Your task to perform on an android device: Add "amazon basics triple a" to the cart on bestbuy.com Image 0: 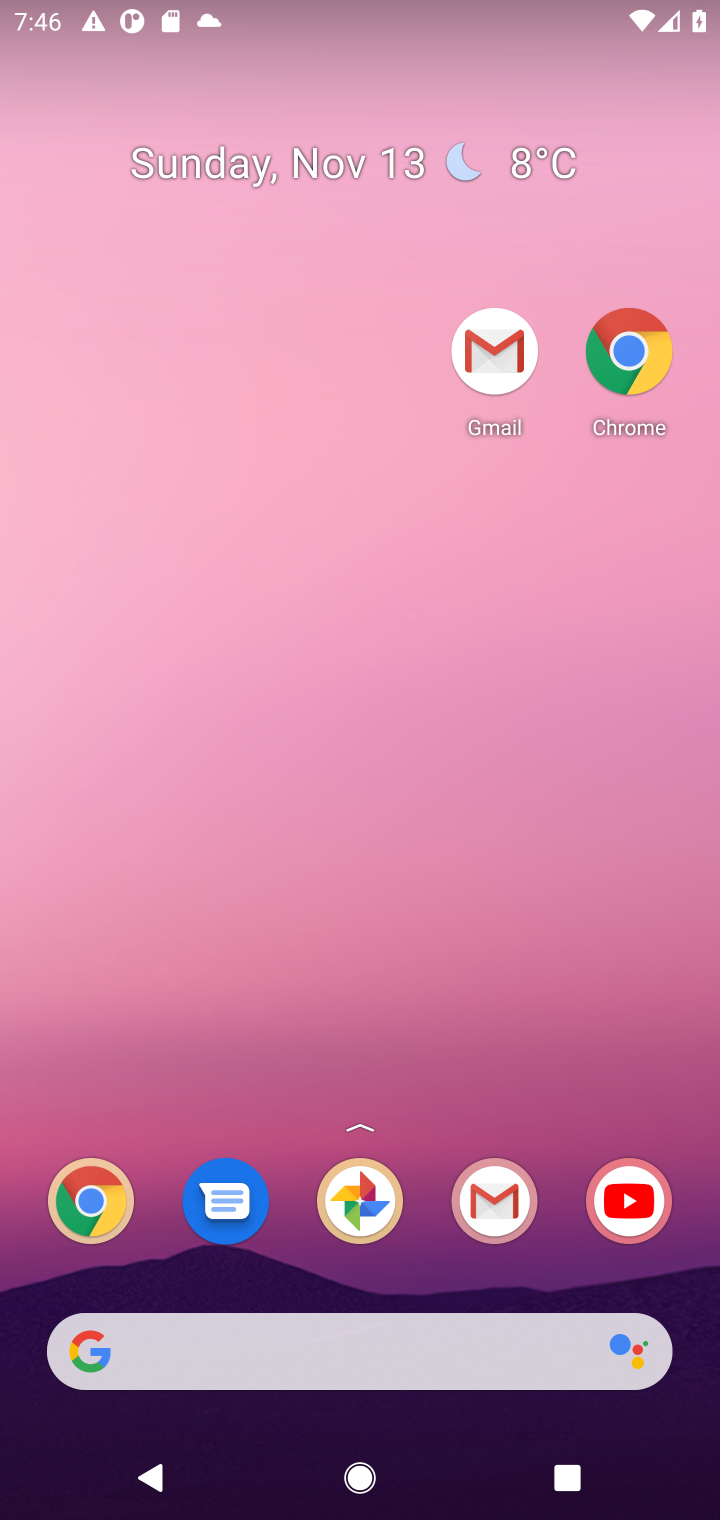
Step 0: drag from (420, 1281) to (325, 252)
Your task to perform on an android device: Add "amazon basics triple a" to the cart on bestbuy.com Image 1: 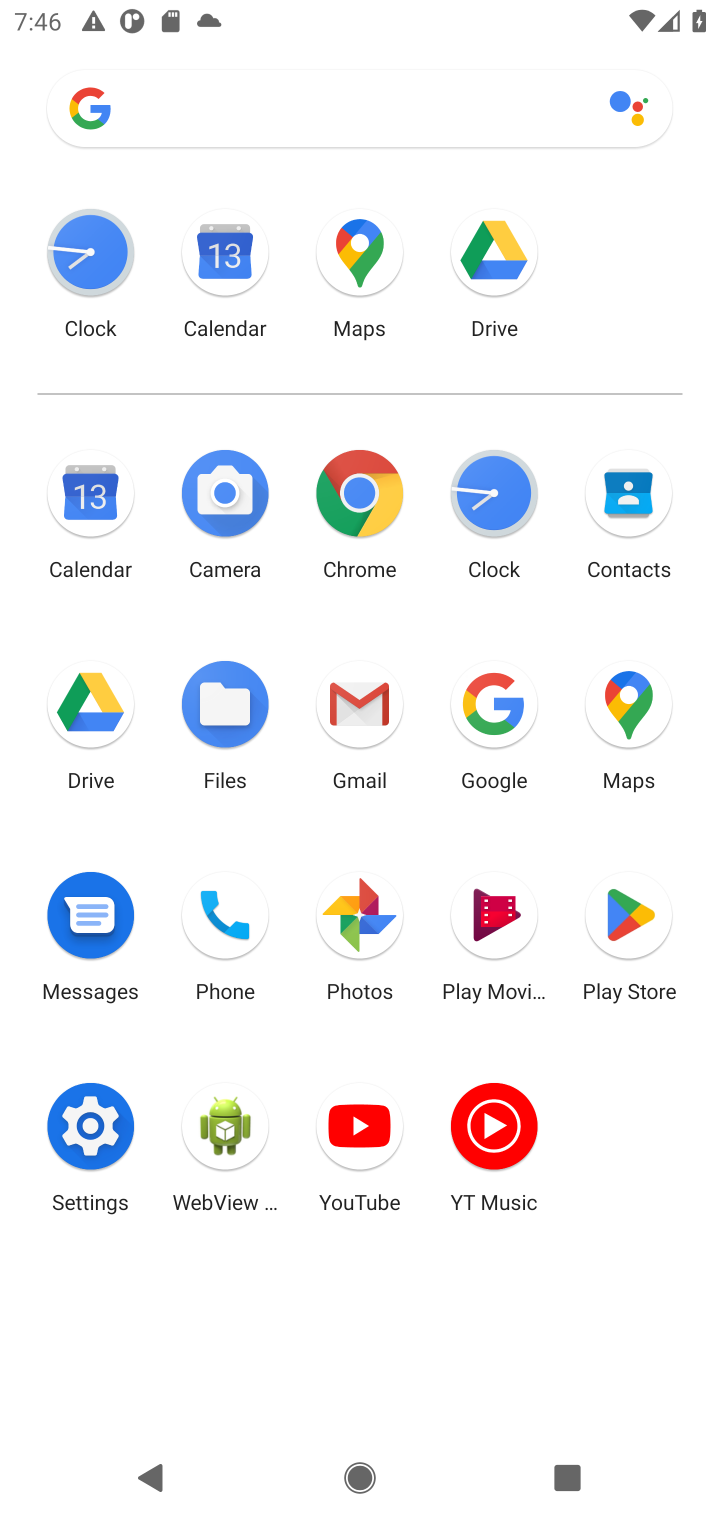
Step 1: click (367, 485)
Your task to perform on an android device: Add "amazon basics triple a" to the cart on bestbuy.com Image 2: 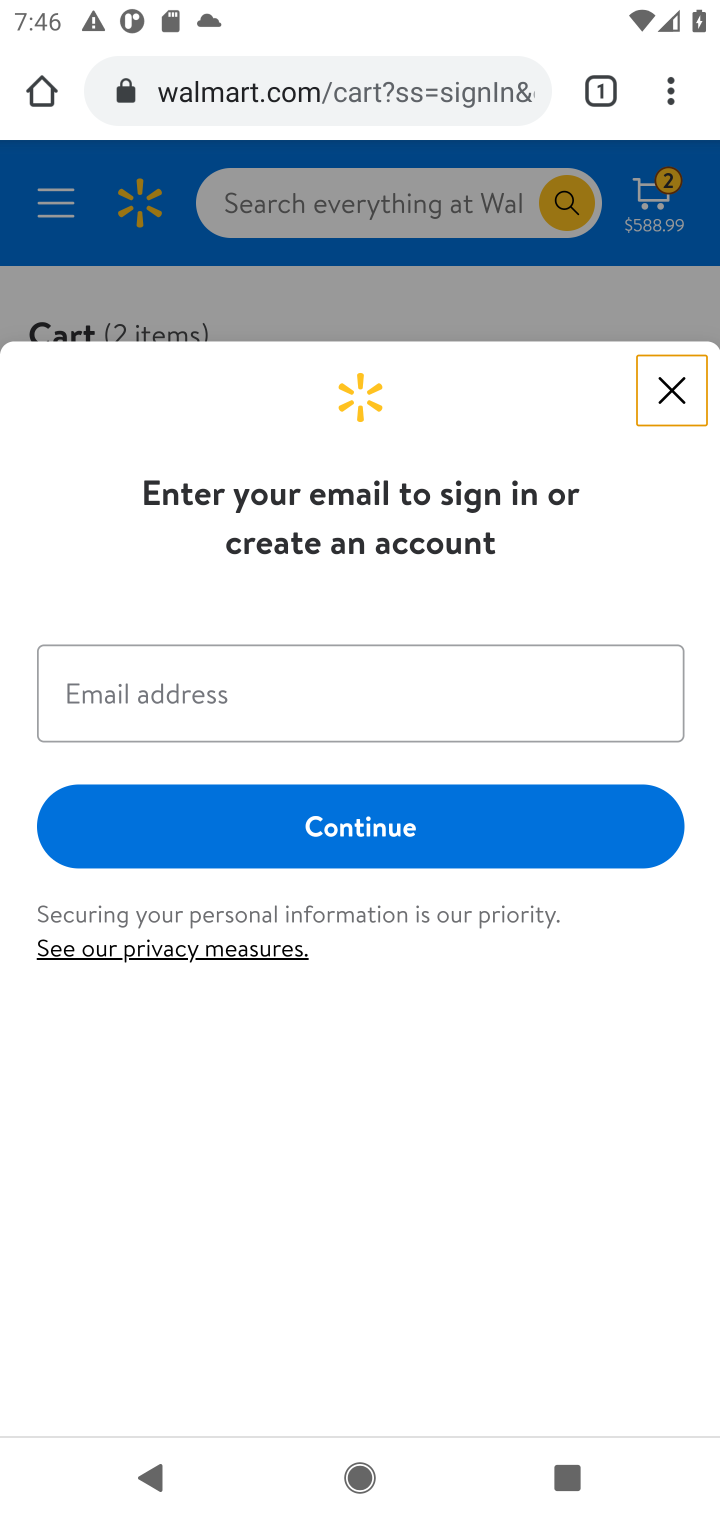
Step 2: click (448, 95)
Your task to perform on an android device: Add "amazon basics triple a" to the cart on bestbuy.com Image 3: 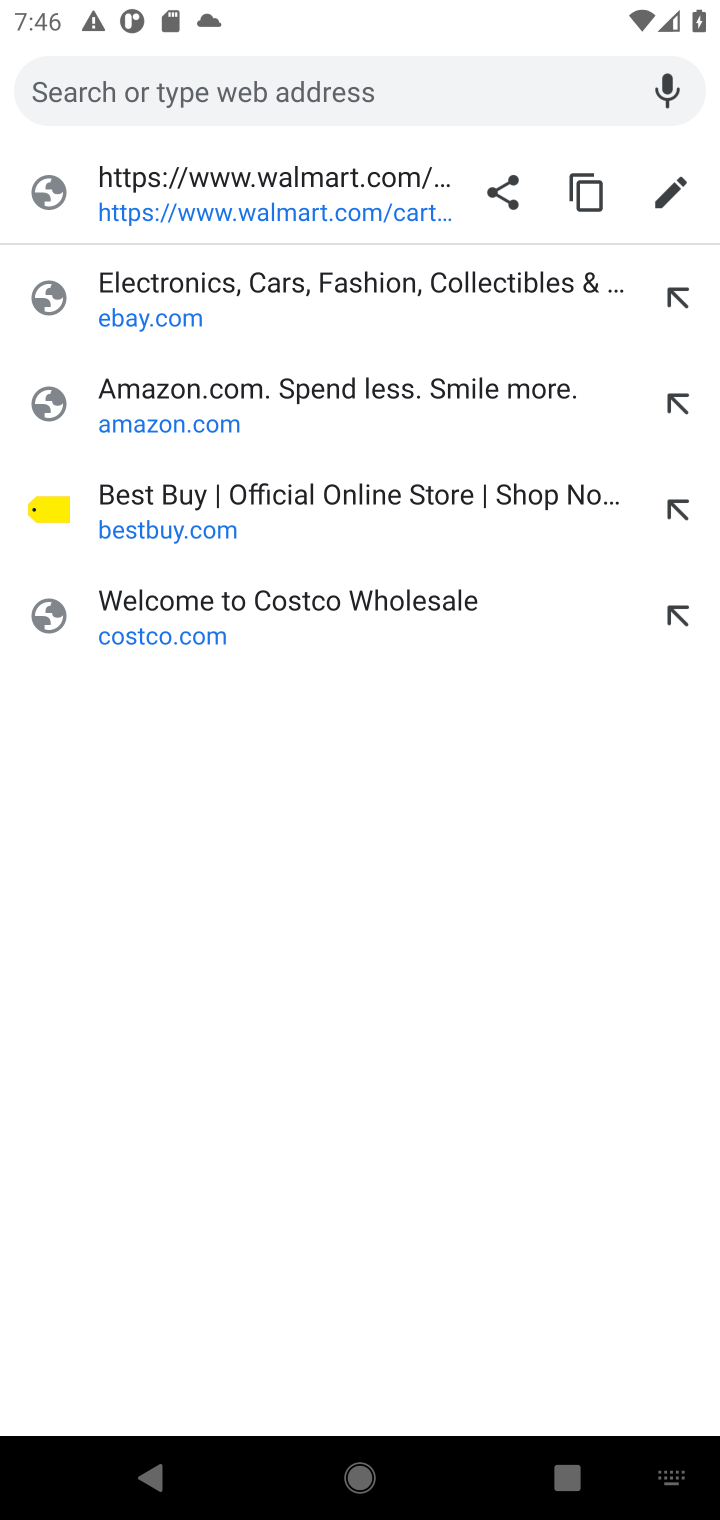
Step 3: type "bestbuy.com"
Your task to perform on an android device: Add "amazon basics triple a" to the cart on bestbuy.com Image 4: 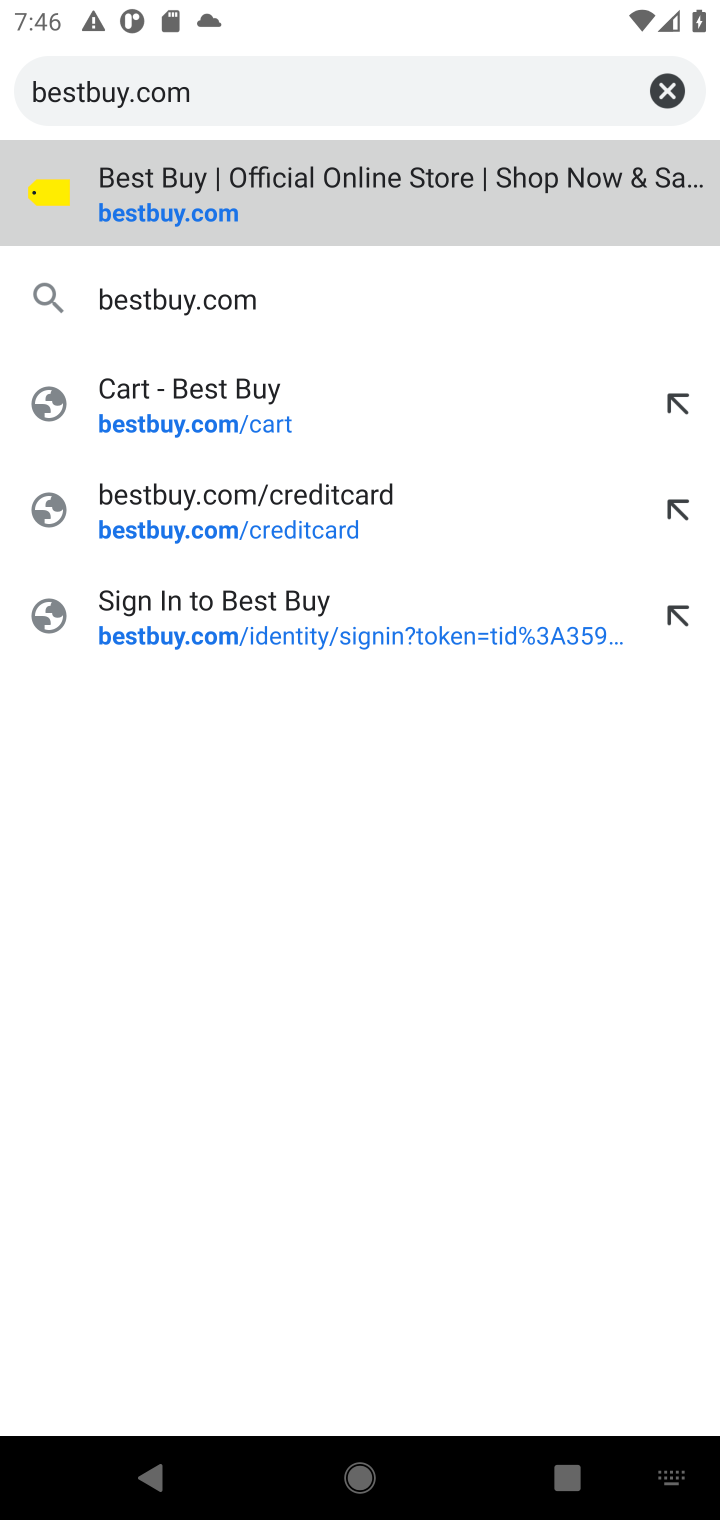
Step 4: press enter
Your task to perform on an android device: Add "amazon basics triple a" to the cart on bestbuy.com Image 5: 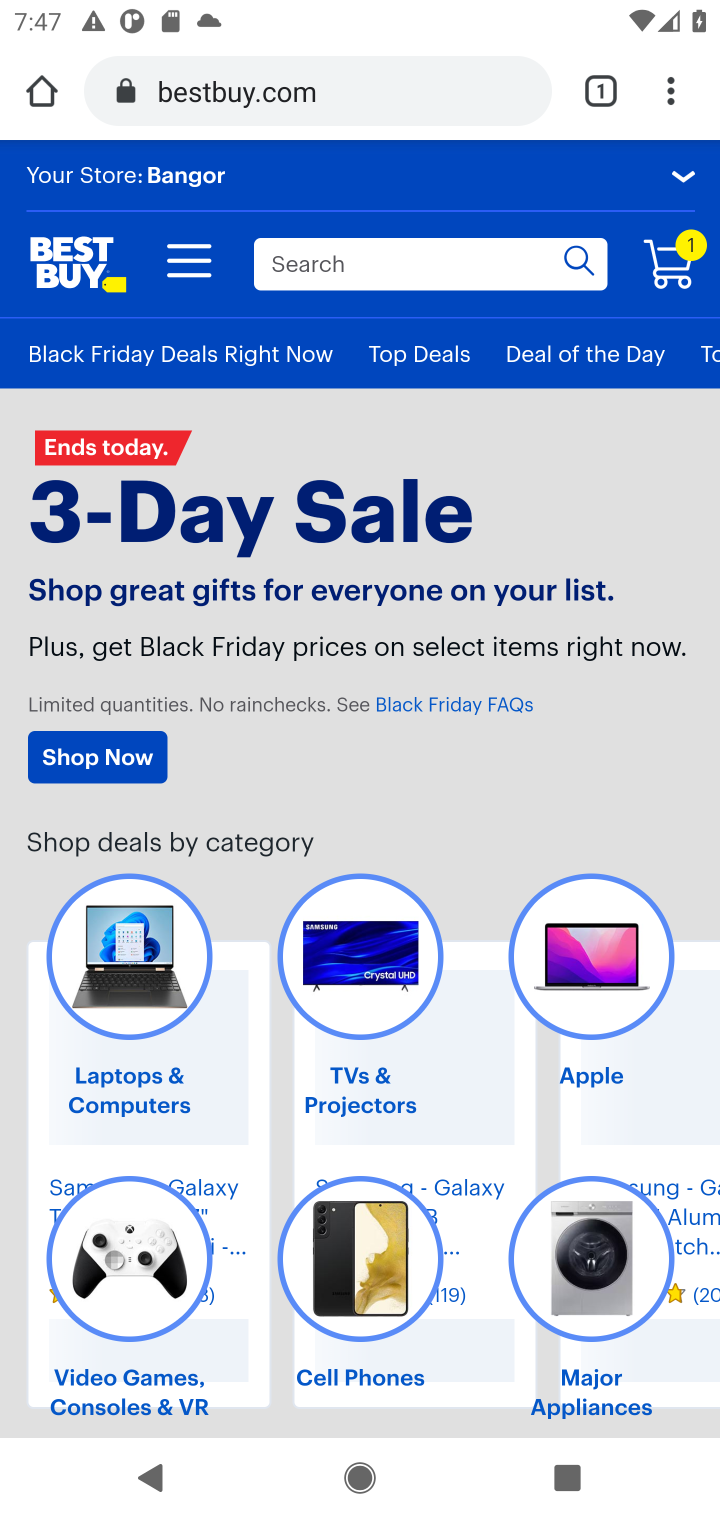
Step 5: click (496, 272)
Your task to perform on an android device: Add "amazon basics triple a" to the cart on bestbuy.com Image 6: 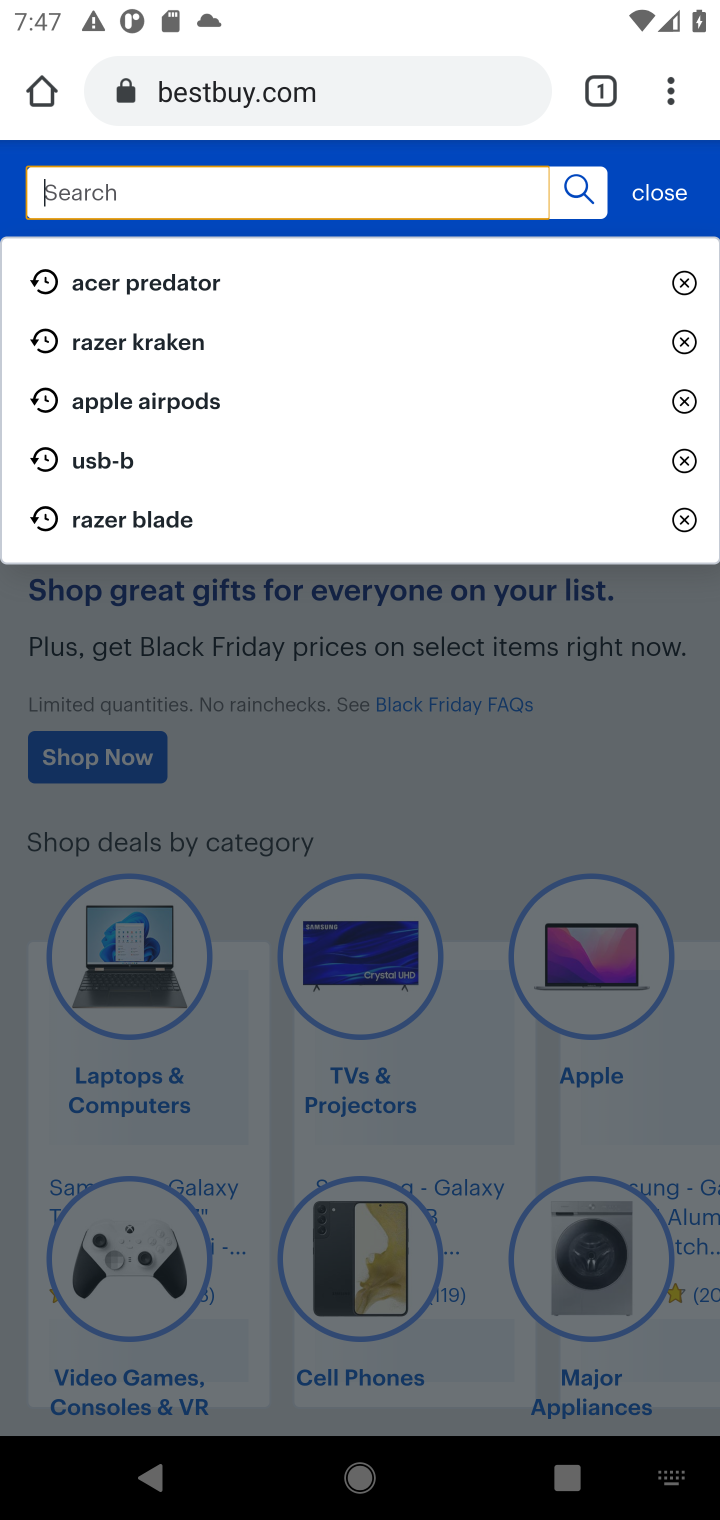
Step 6: type "amazon basics triple"
Your task to perform on an android device: Add "amazon basics triple a" to the cart on bestbuy.com Image 7: 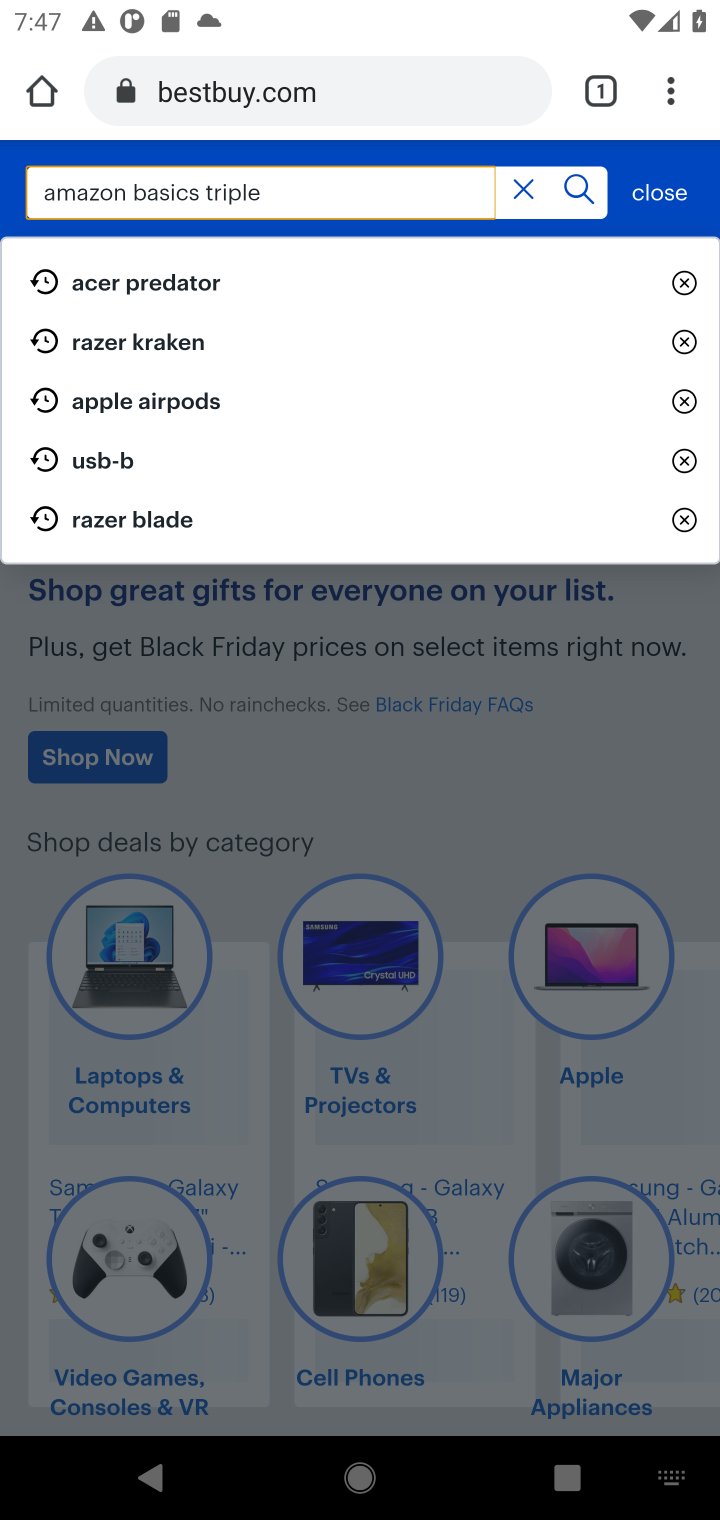
Step 7: press enter
Your task to perform on an android device: Add "amazon basics triple a" to the cart on bestbuy.com Image 8: 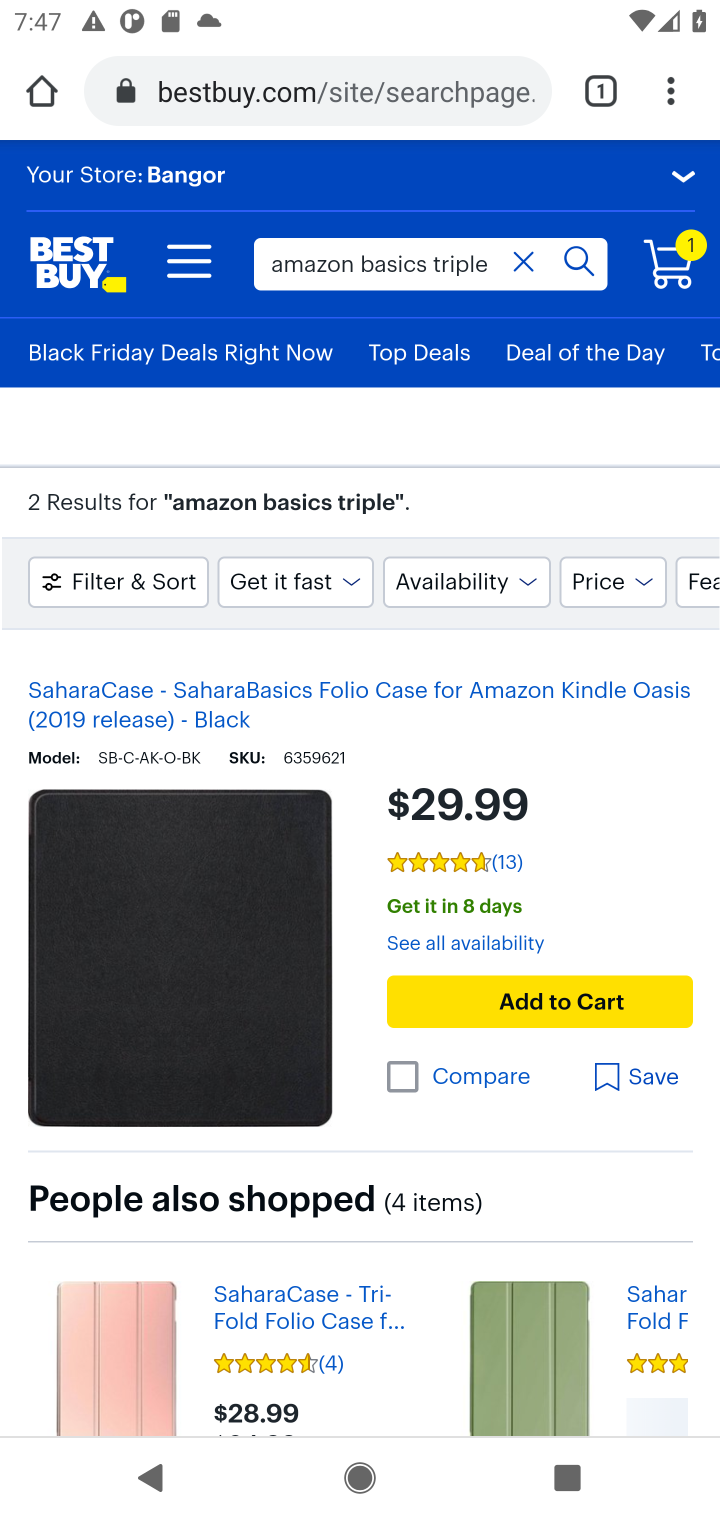
Step 8: task complete